Your task to perform on an android device: set the timer Image 0: 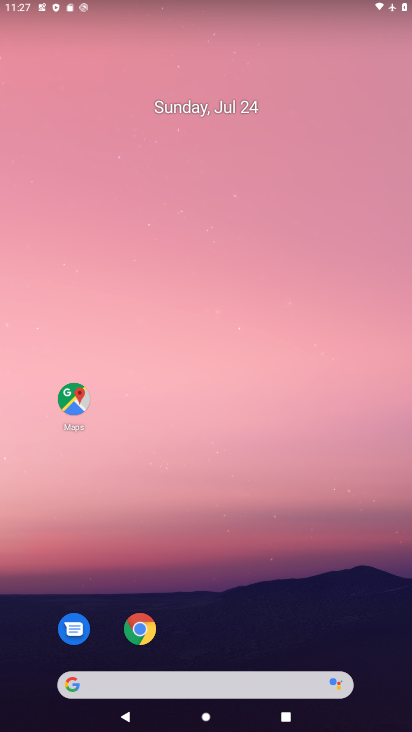
Step 0: drag from (258, 647) to (321, 49)
Your task to perform on an android device: set the timer Image 1: 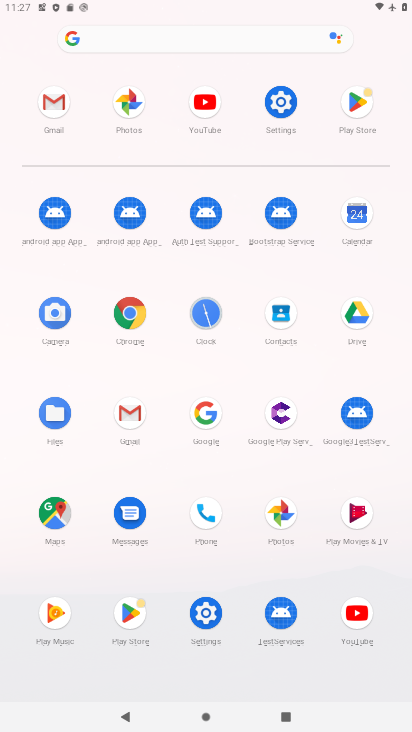
Step 1: click (205, 322)
Your task to perform on an android device: set the timer Image 2: 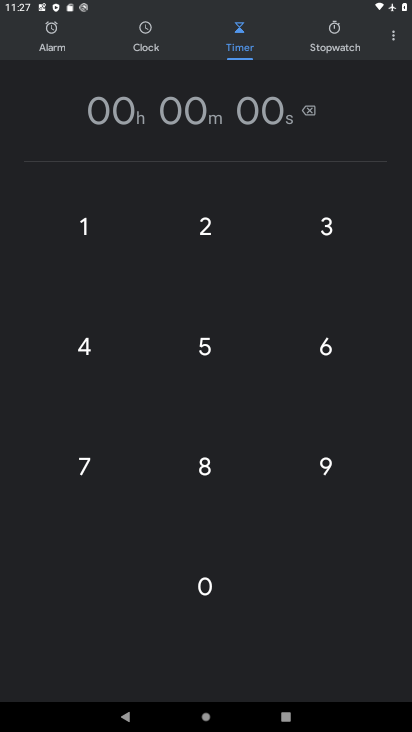
Step 2: task complete